Your task to perform on an android device: turn on javascript in the chrome app Image 0: 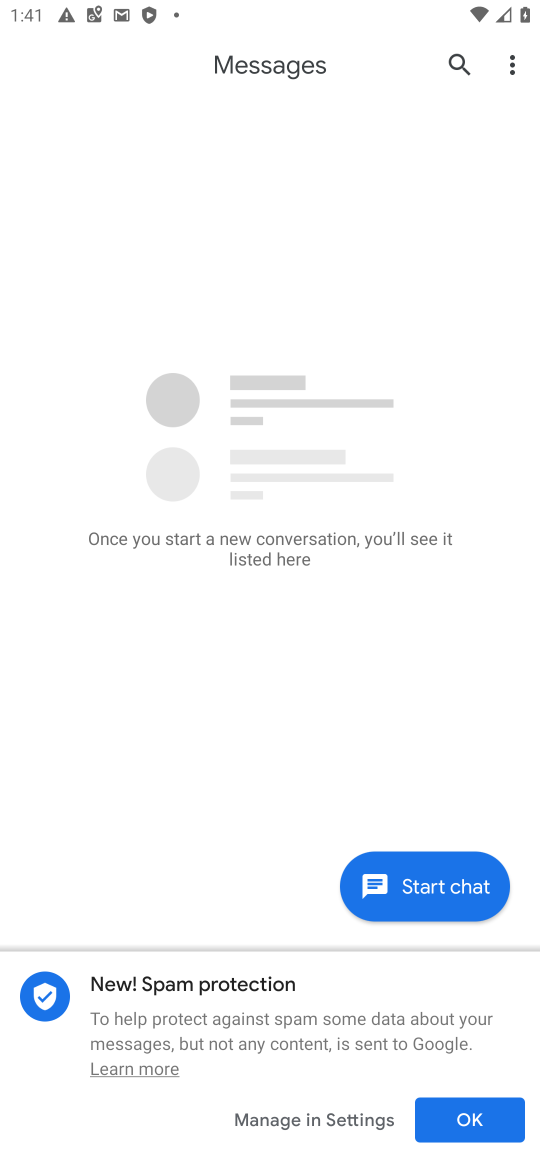
Step 0: press home button
Your task to perform on an android device: turn on javascript in the chrome app Image 1: 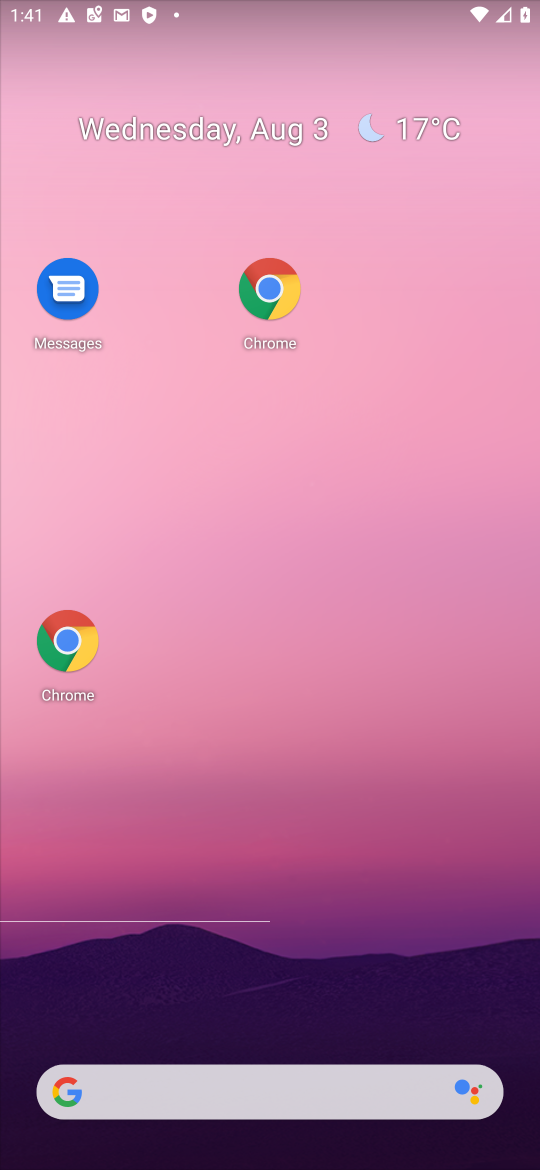
Step 1: click (259, 297)
Your task to perform on an android device: turn on javascript in the chrome app Image 2: 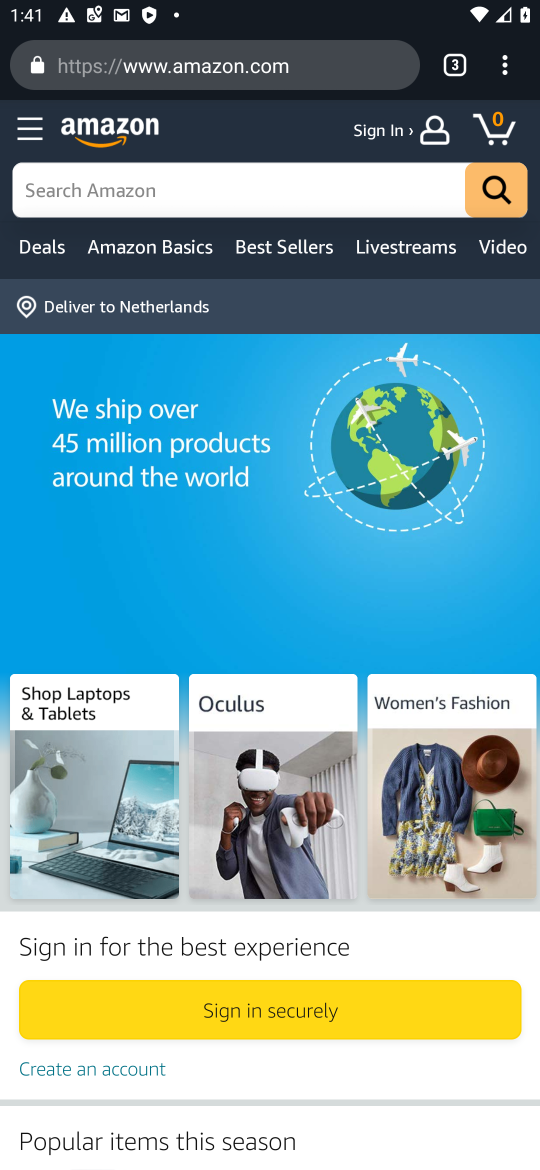
Step 2: click (494, 80)
Your task to perform on an android device: turn on javascript in the chrome app Image 3: 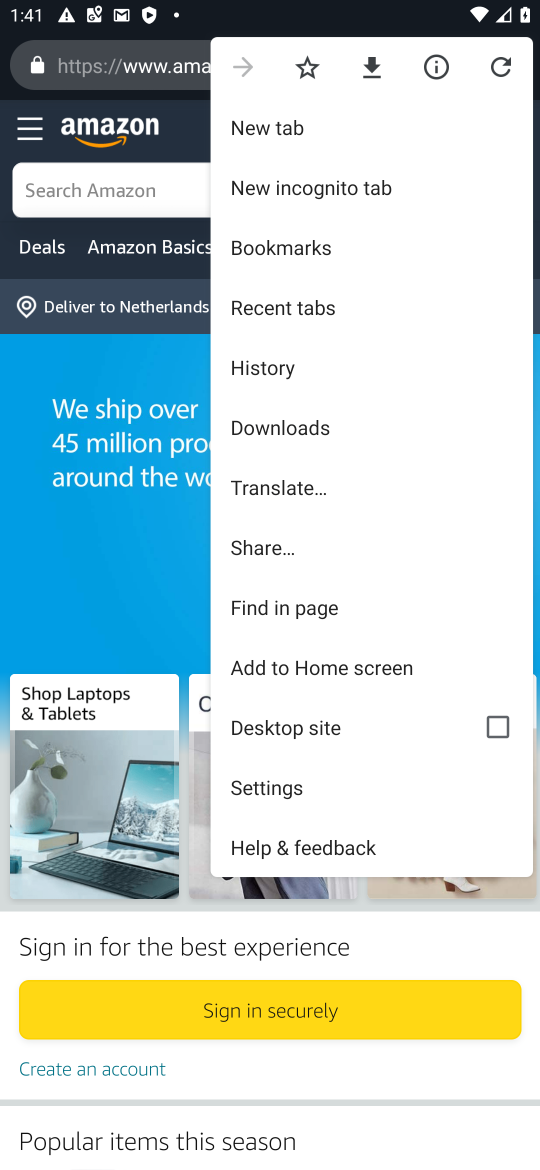
Step 3: click (331, 787)
Your task to perform on an android device: turn on javascript in the chrome app Image 4: 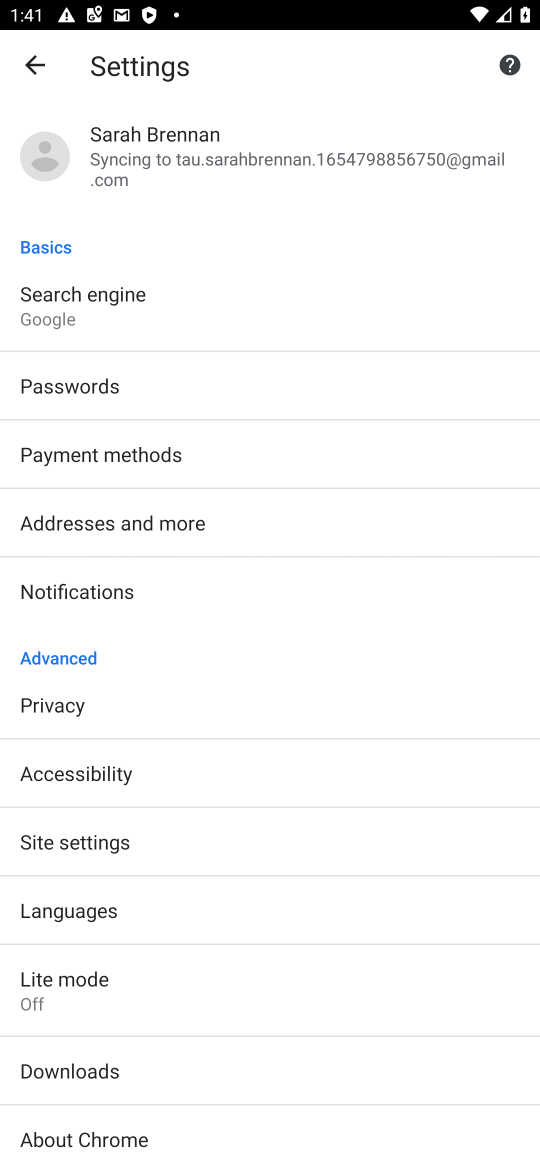
Step 4: click (290, 847)
Your task to perform on an android device: turn on javascript in the chrome app Image 5: 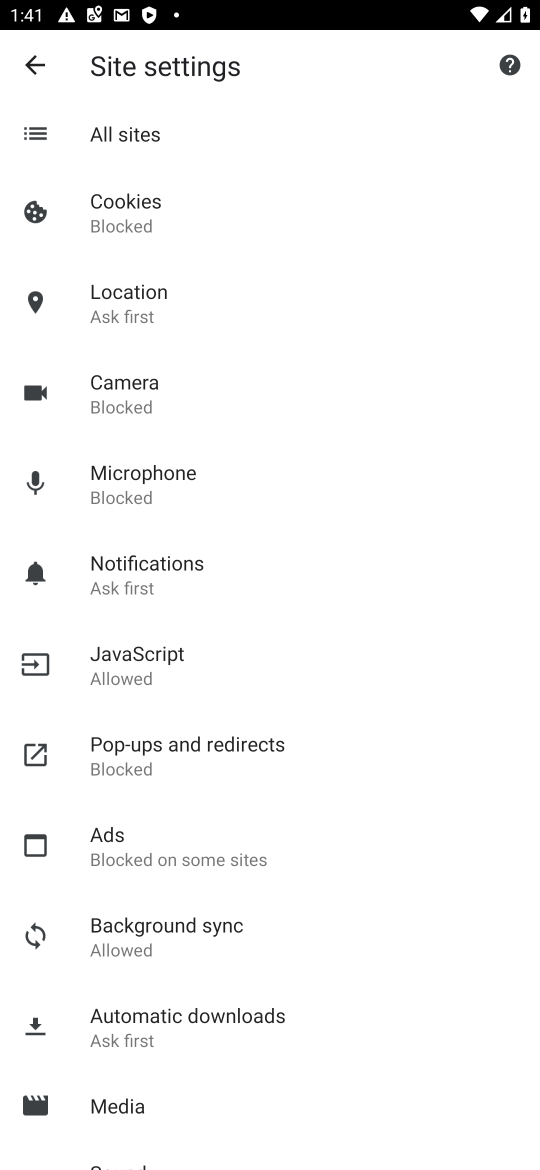
Step 5: click (131, 672)
Your task to perform on an android device: turn on javascript in the chrome app Image 6: 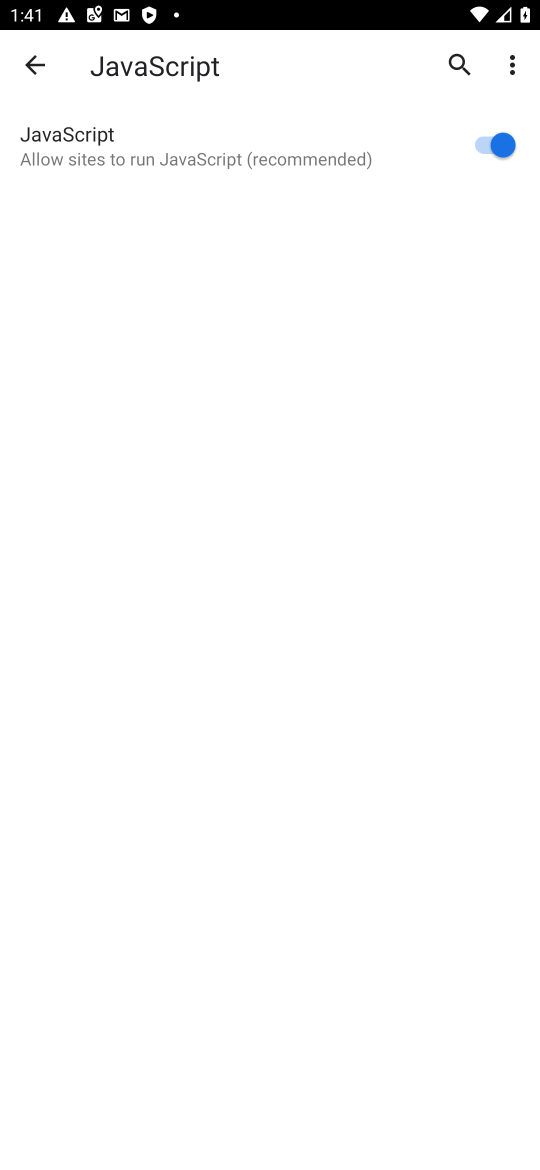
Step 6: click (484, 133)
Your task to perform on an android device: turn on javascript in the chrome app Image 7: 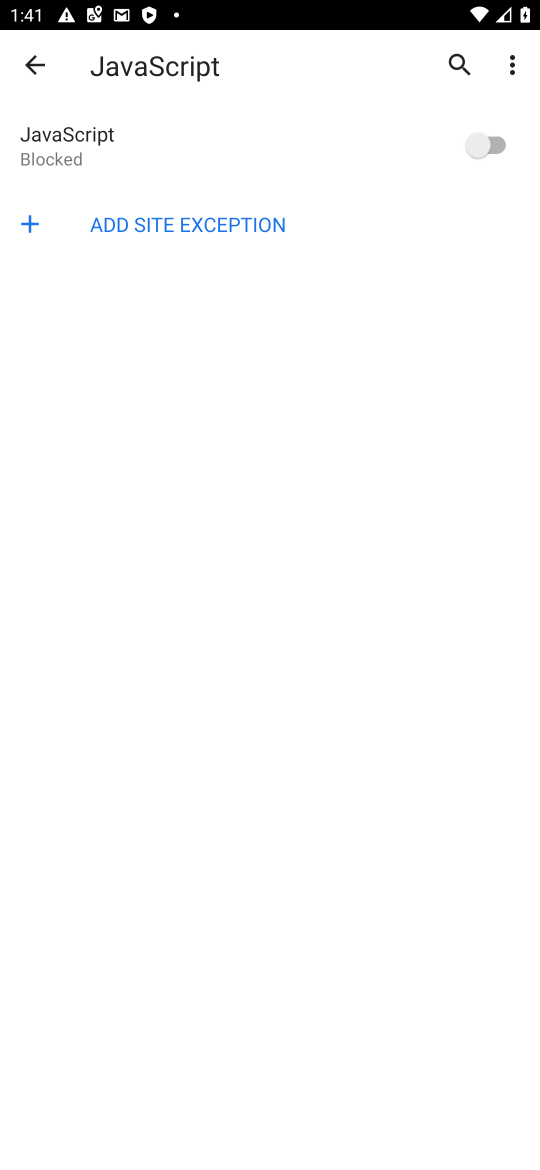
Step 7: click (495, 146)
Your task to perform on an android device: turn on javascript in the chrome app Image 8: 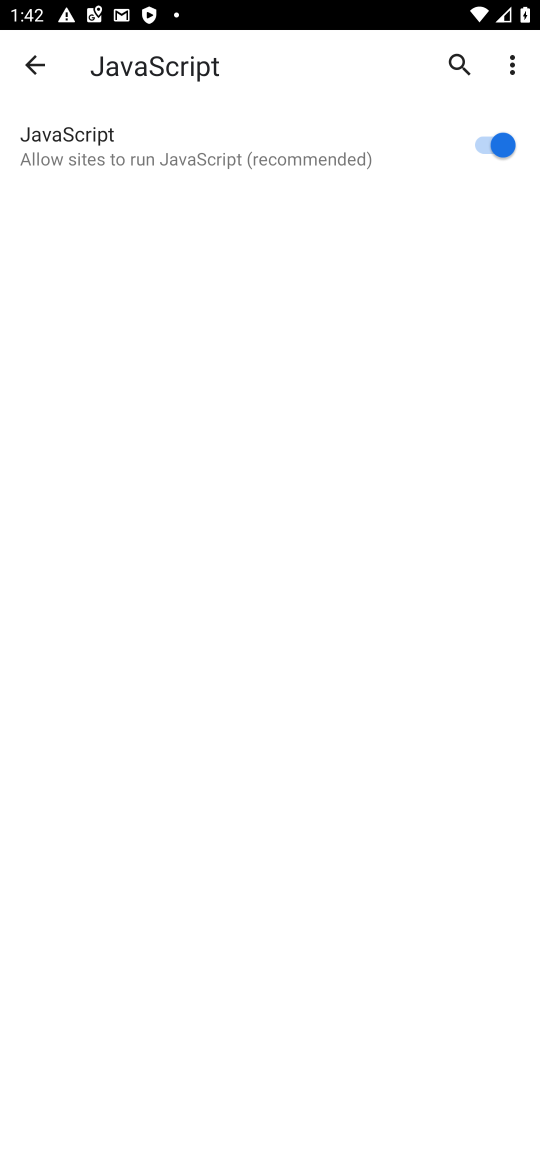
Step 8: task complete